Your task to perform on an android device: What is the recent news? Image 0: 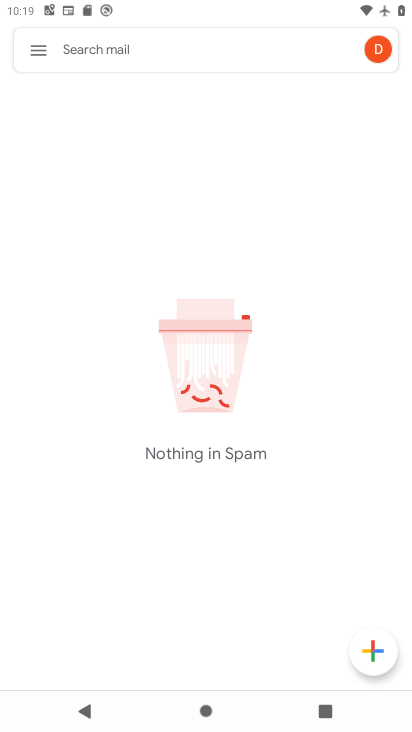
Step 0: press home button
Your task to perform on an android device: What is the recent news? Image 1: 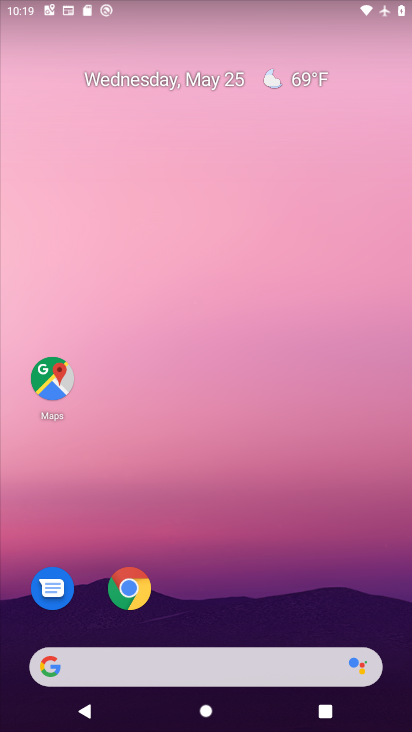
Step 1: task complete